Your task to perform on an android device: remove spam from my inbox in the gmail app Image 0: 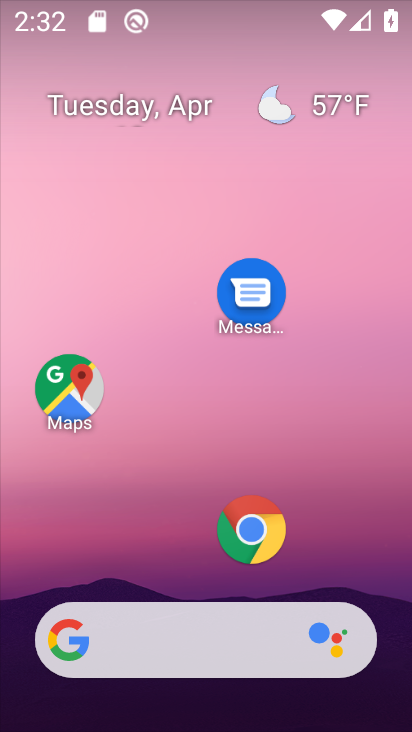
Step 0: drag from (165, 529) to (123, 134)
Your task to perform on an android device: remove spam from my inbox in the gmail app Image 1: 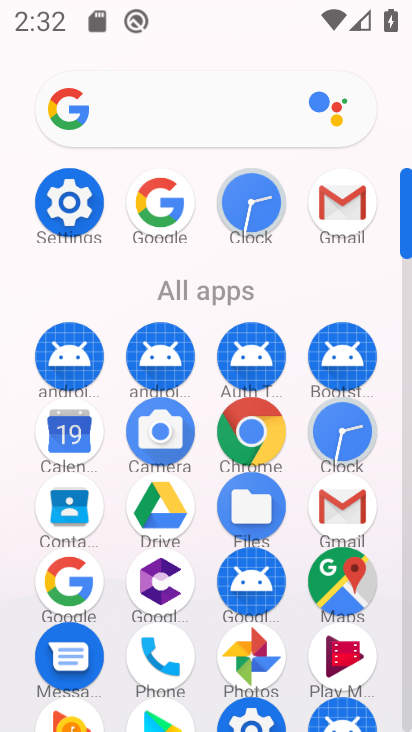
Step 1: click (334, 192)
Your task to perform on an android device: remove spam from my inbox in the gmail app Image 2: 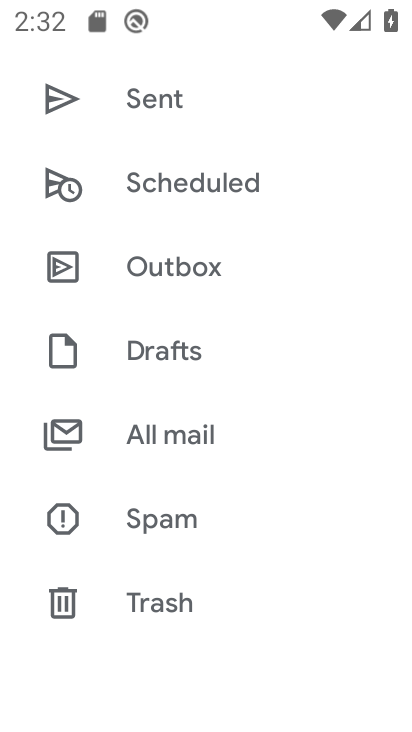
Step 2: click (164, 432)
Your task to perform on an android device: remove spam from my inbox in the gmail app Image 3: 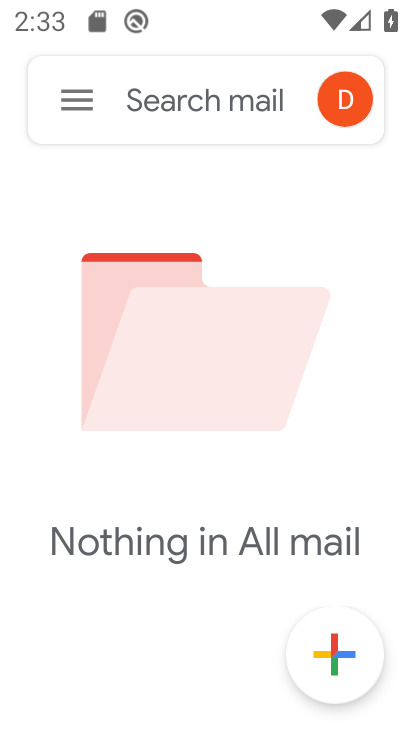
Step 3: task complete